Your task to perform on an android device: turn on javascript in the chrome app Image 0: 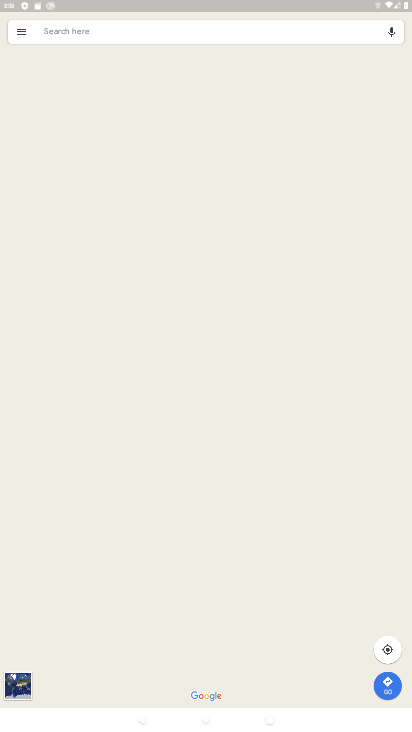
Step 0: drag from (219, 669) to (206, 608)
Your task to perform on an android device: turn on javascript in the chrome app Image 1: 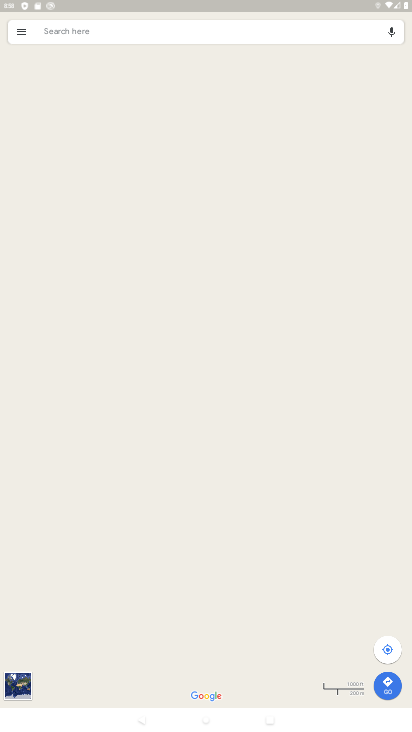
Step 1: press home button
Your task to perform on an android device: turn on javascript in the chrome app Image 2: 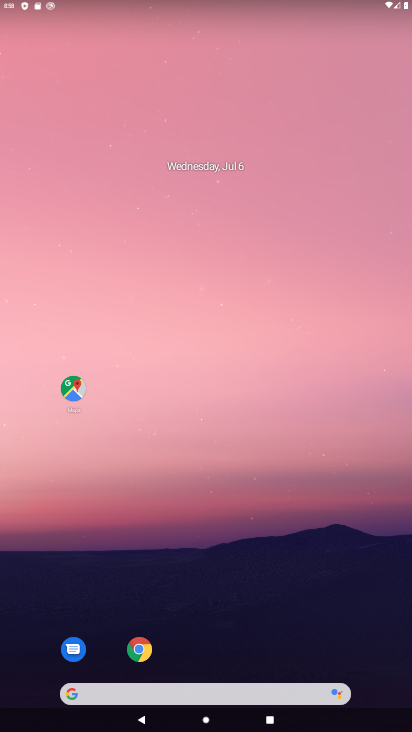
Step 2: click (133, 657)
Your task to perform on an android device: turn on javascript in the chrome app Image 3: 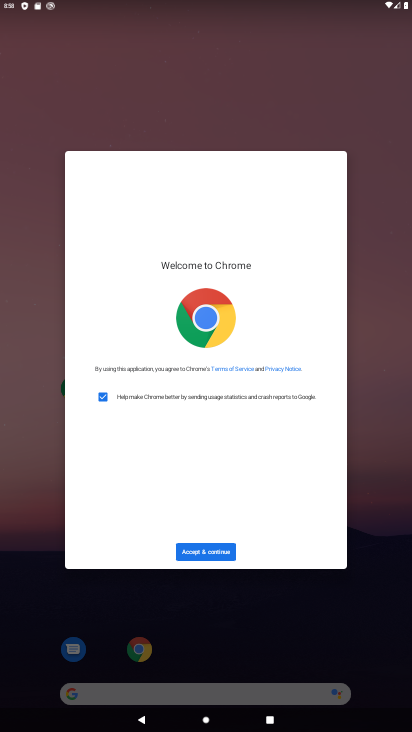
Step 3: click (198, 548)
Your task to perform on an android device: turn on javascript in the chrome app Image 4: 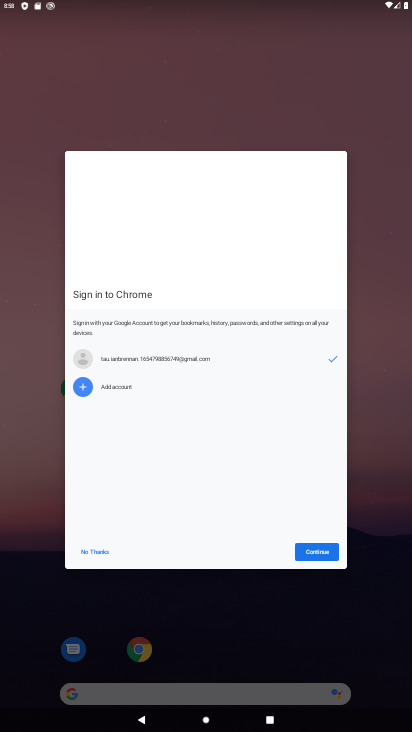
Step 4: click (308, 552)
Your task to perform on an android device: turn on javascript in the chrome app Image 5: 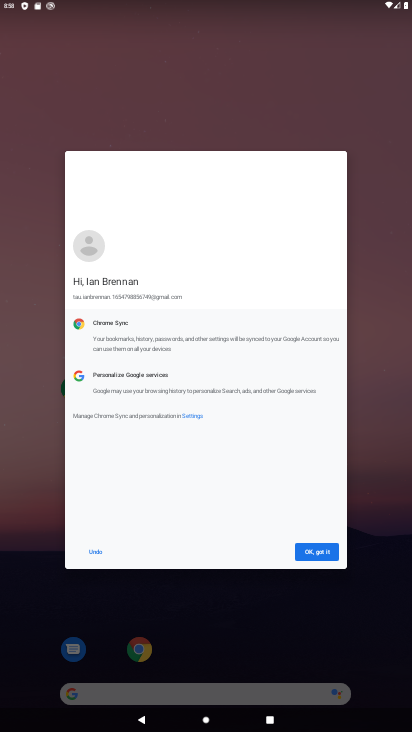
Step 5: click (308, 552)
Your task to perform on an android device: turn on javascript in the chrome app Image 6: 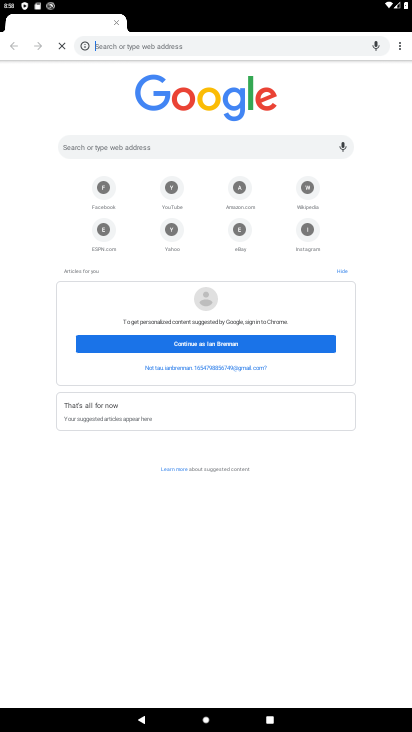
Step 6: click (396, 45)
Your task to perform on an android device: turn on javascript in the chrome app Image 7: 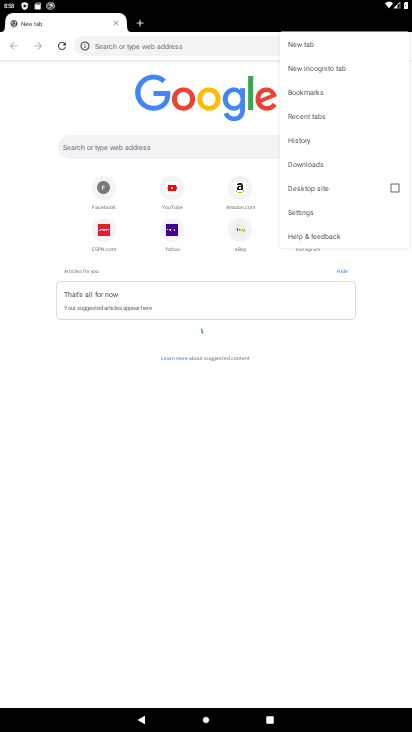
Step 7: click (291, 209)
Your task to perform on an android device: turn on javascript in the chrome app Image 8: 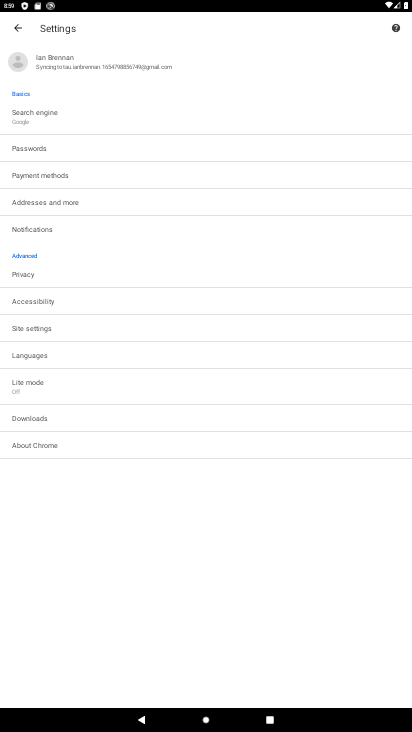
Step 8: click (34, 322)
Your task to perform on an android device: turn on javascript in the chrome app Image 9: 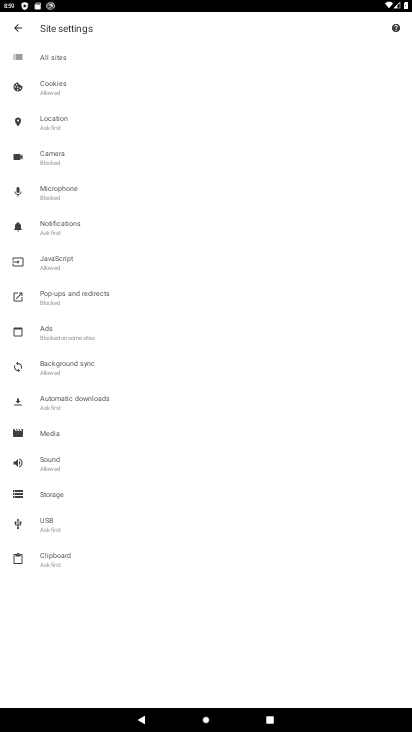
Step 9: click (44, 255)
Your task to perform on an android device: turn on javascript in the chrome app Image 10: 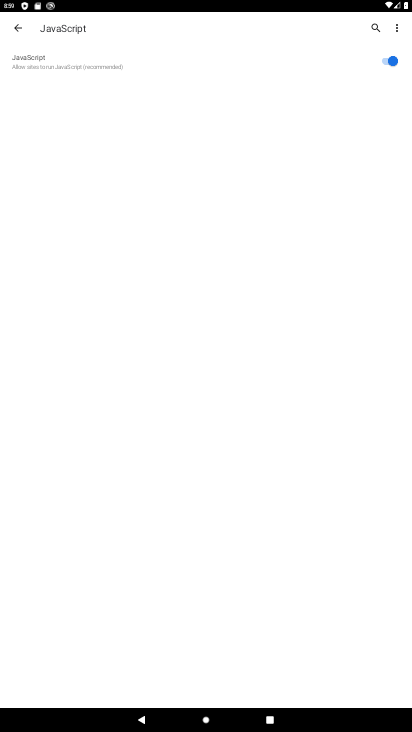
Step 10: task complete